Your task to perform on an android device: remove spam from my inbox in the gmail app Image 0: 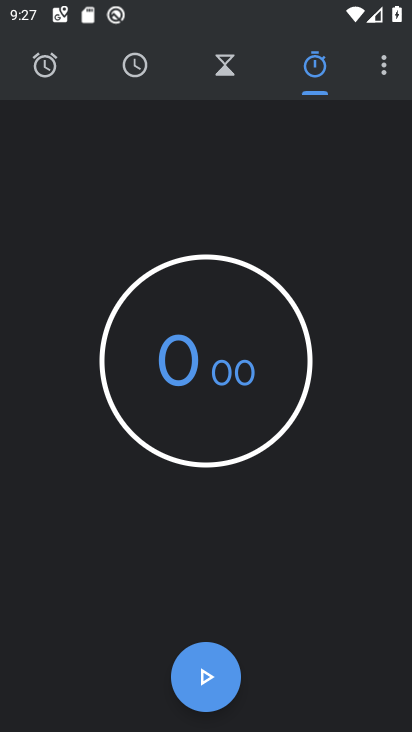
Step 0: press home button
Your task to perform on an android device: remove spam from my inbox in the gmail app Image 1: 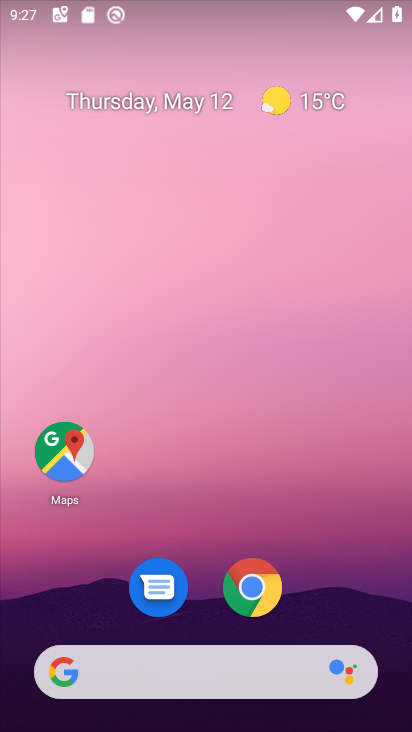
Step 1: drag from (370, 627) to (196, 82)
Your task to perform on an android device: remove spam from my inbox in the gmail app Image 2: 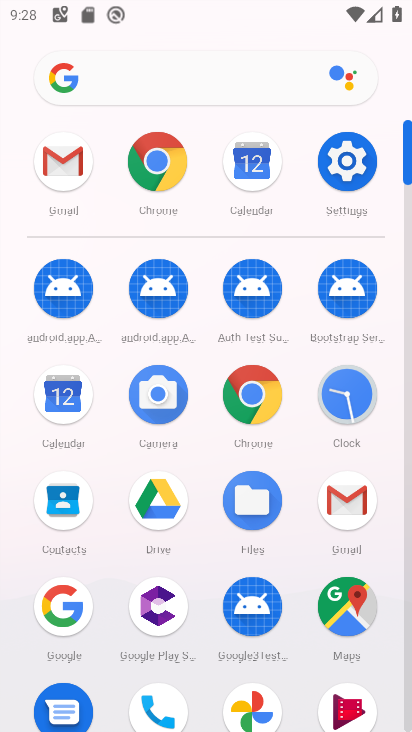
Step 2: click (329, 483)
Your task to perform on an android device: remove spam from my inbox in the gmail app Image 3: 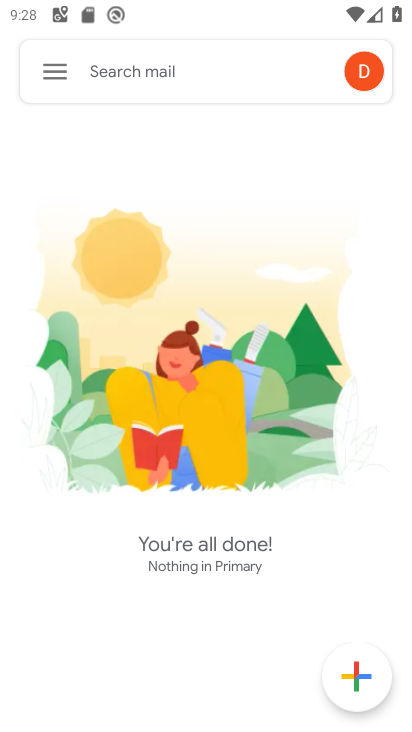
Step 3: click (50, 76)
Your task to perform on an android device: remove spam from my inbox in the gmail app Image 4: 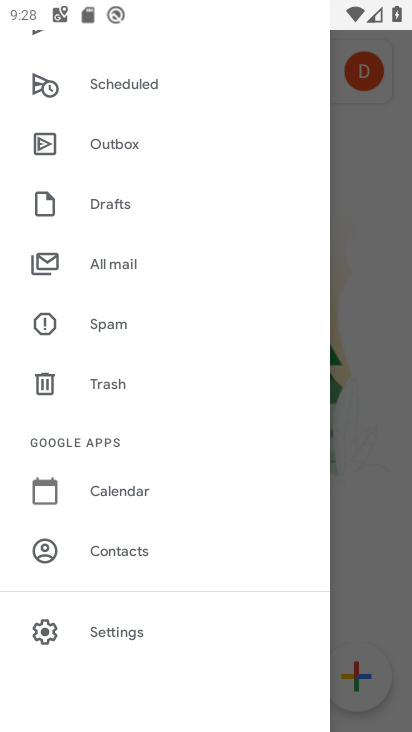
Step 4: click (141, 330)
Your task to perform on an android device: remove spam from my inbox in the gmail app Image 5: 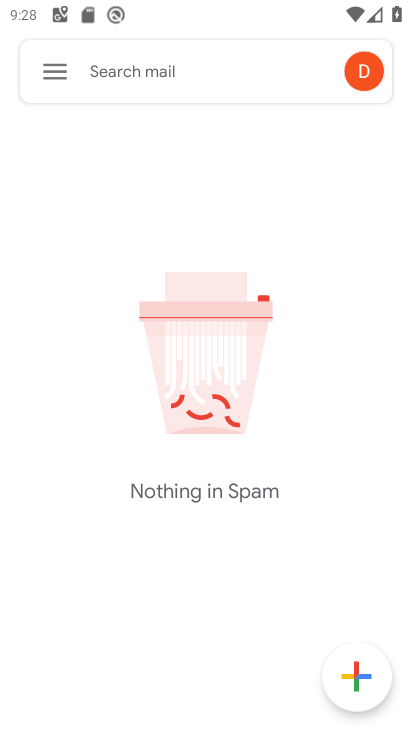
Step 5: task complete